Your task to perform on an android device: turn on javascript in the chrome app Image 0: 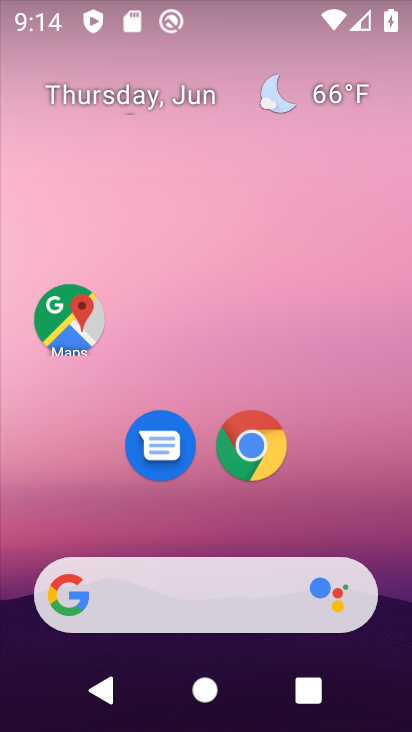
Step 0: click (259, 440)
Your task to perform on an android device: turn on javascript in the chrome app Image 1: 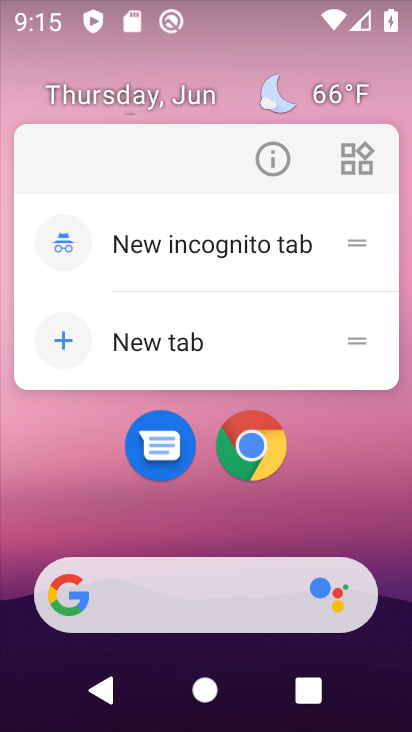
Step 1: click (258, 437)
Your task to perform on an android device: turn on javascript in the chrome app Image 2: 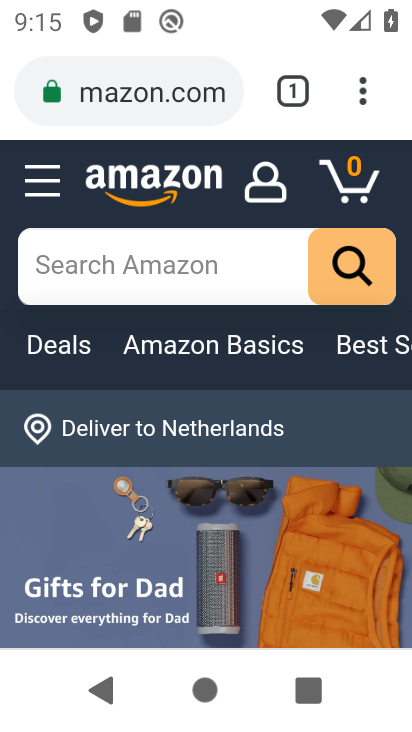
Step 2: click (361, 71)
Your task to perform on an android device: turn on javascript in the chrome app Image 3: 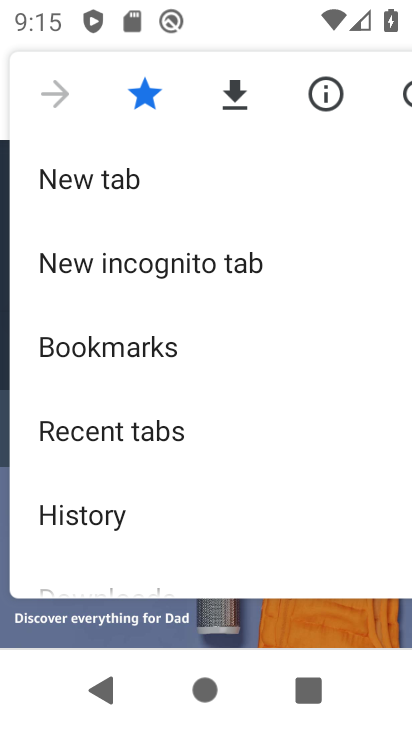
Step 3: drag from (145, 527) to (184, 201)
Your task to perform on an android device: turn on javascript in the chrome app Image 4: 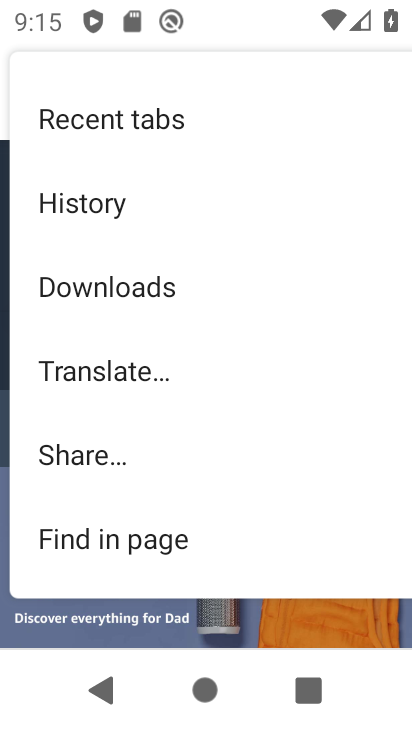
Step 4: drag from (197, 499) to (177, 197)
Your task to perform on an android device: turn on javascript in the chrome app Image 5: 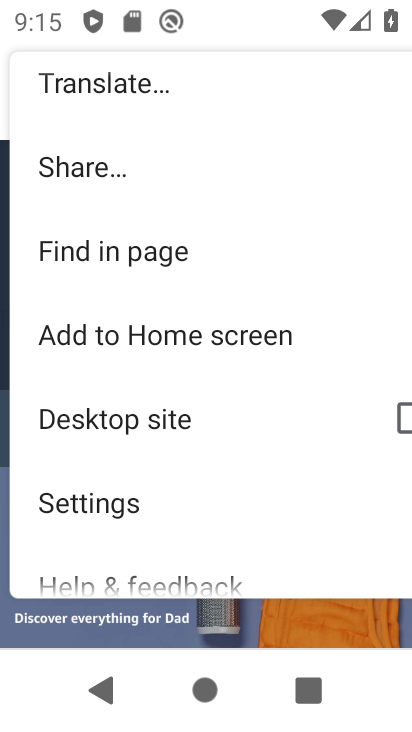
Step 5: click (125, 496)
Your task to perform on an android device: turn on javascript in the chrome app Image 6: 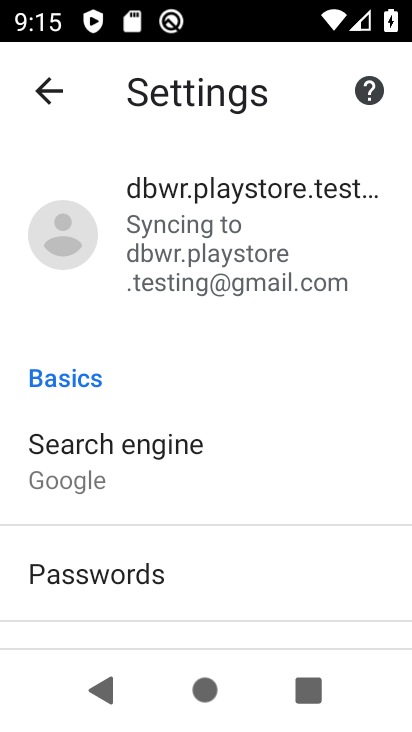
Step 6: drag from (256, 582) to (260, 192)
Your task to perform on an android device: turn on javascript in the chrome app Image 7: 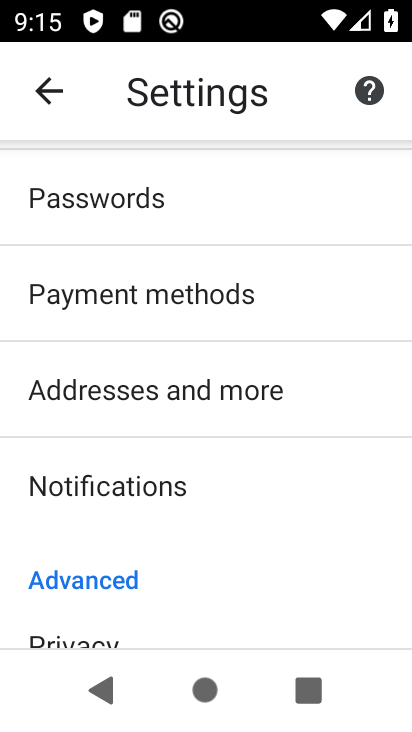
Step 7: drag from (214, 557) to (227, 202)
Your task to perform on an android device: turn on javascript in the chrome app Image 8: 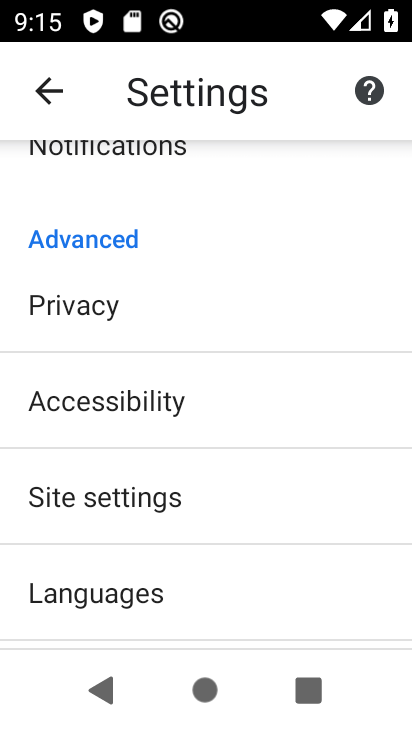
Step 8: click (130, 518)
Your task to perform on an android device: turn on javascript in the chrome app Image 9: 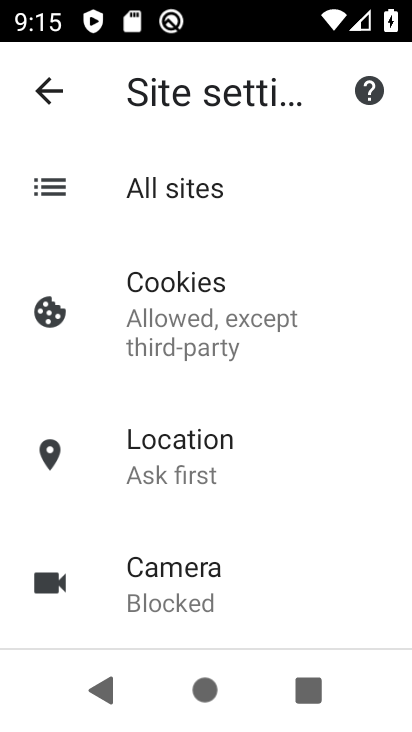
Step 9: drag from (175, 594) to (184, 208)
Your task to perform on an android device: turn on javascript in the chrome app Image 10: 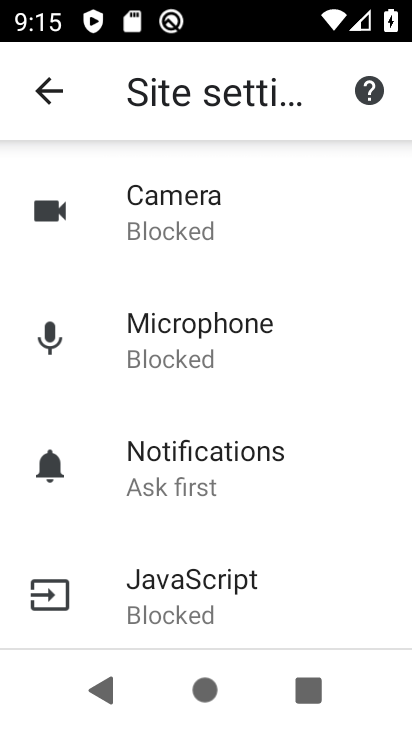
Step 10: click (216, 576)
Your task to perform on an android device: turn on javascript in the chrome app Image 11: 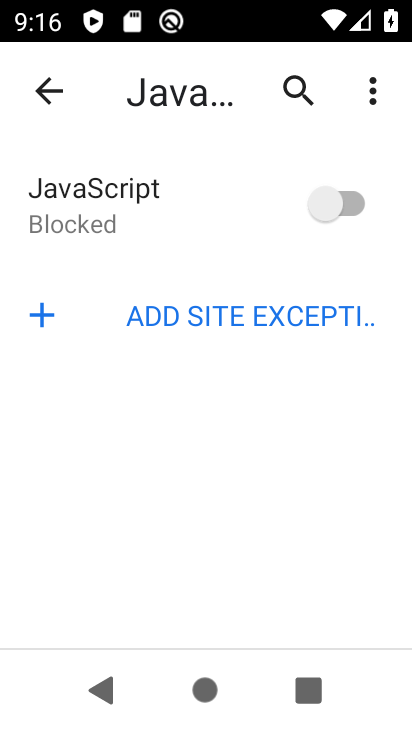
Step 11: click (347, 191)
Your task to perform on an android device: turn on javascript in the chrome app Image 12: 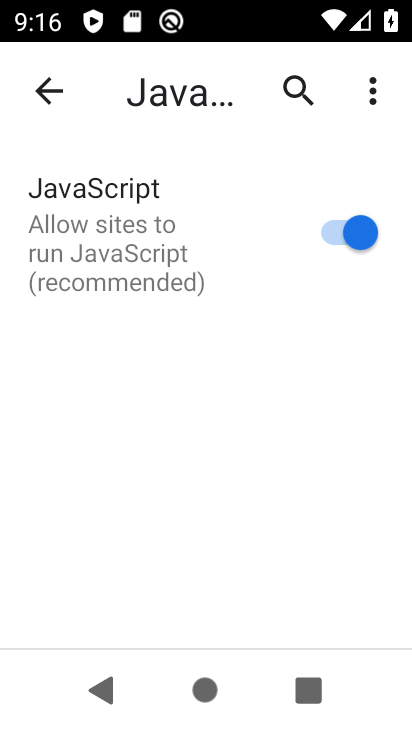
Step 12: task complete